Your task to perform on an android device: check storage Image 0: 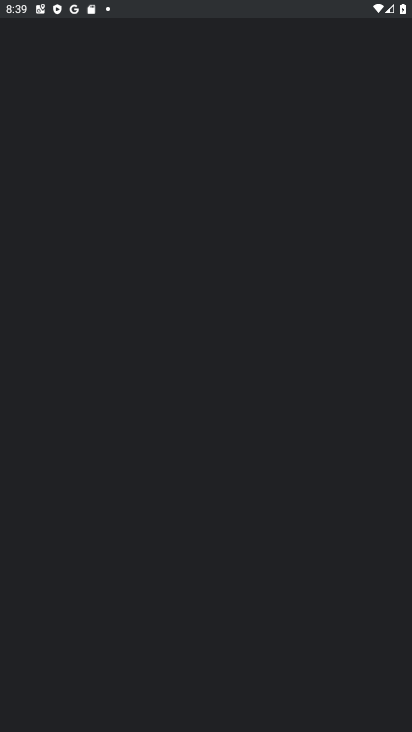
Step 0: drag from (200, 681) to (194, 361)
Your task to perform on an android device: check storage Image 1: 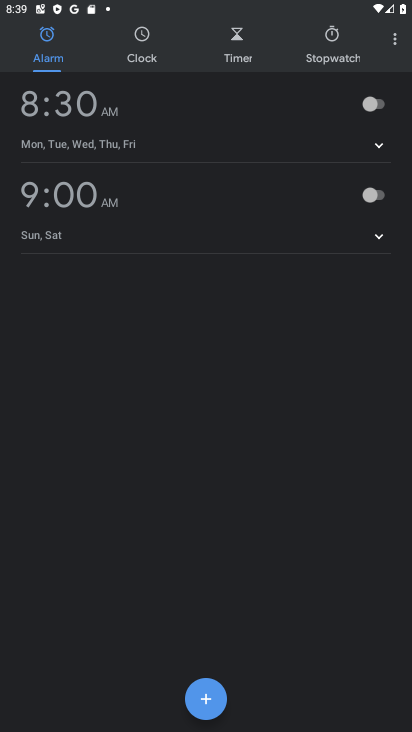
Step 1: press back button
Your task to perform on an android device: check storage Image 2: 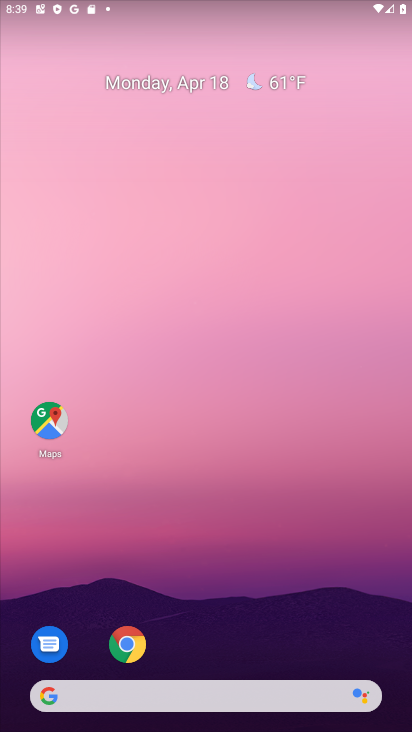
Step 2: drag from (216, 696) to (167, 178)
Your task to perform on an android device: check storage Image 3: 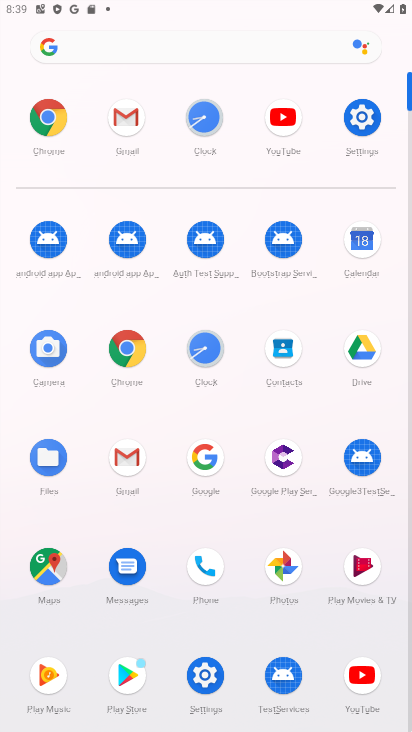
Step 3: click (218, 674)
Your task to perform on an android device: check storage Image 4: 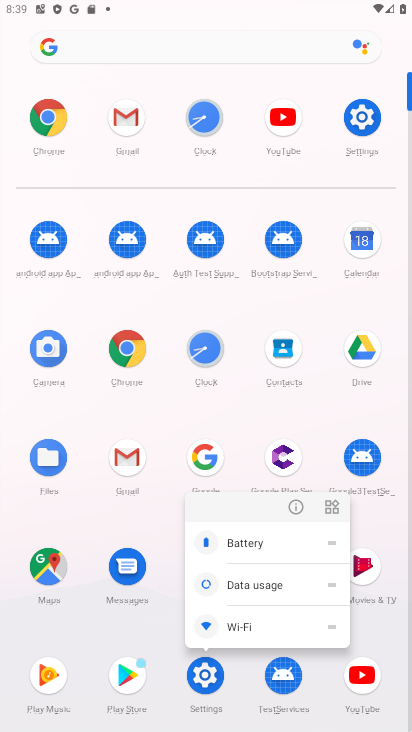
Step 4: click (214, 673)
Your task to perform on an android device: check storage Image 5: 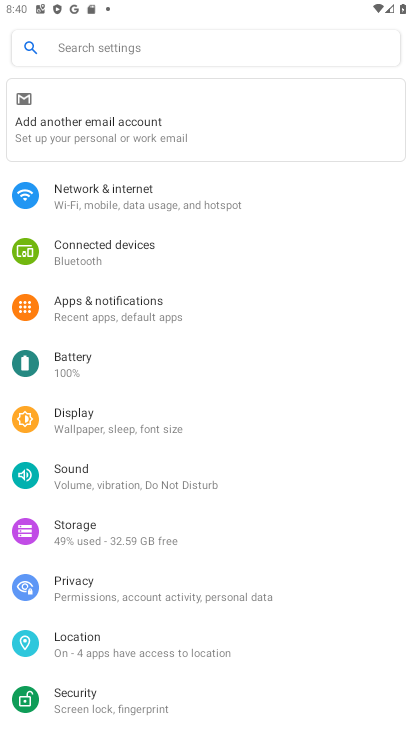
Step 5: click (96, 540)
Your task to perform on an android device: check storage Image 6: 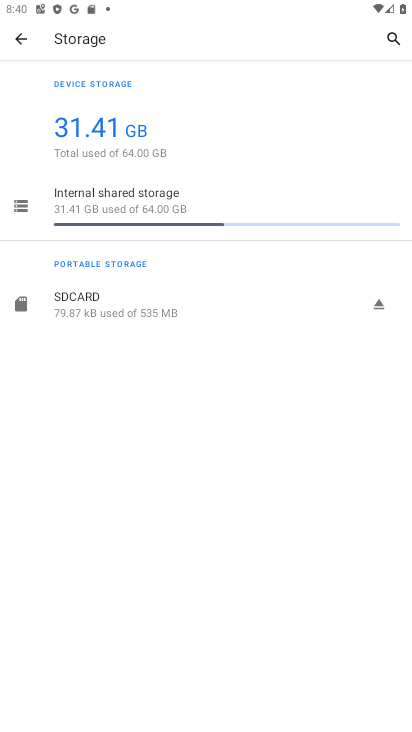
Step 6: task complete